Your task to perform on an android device: Open calendar and show me the fourth week of next month Image 0: 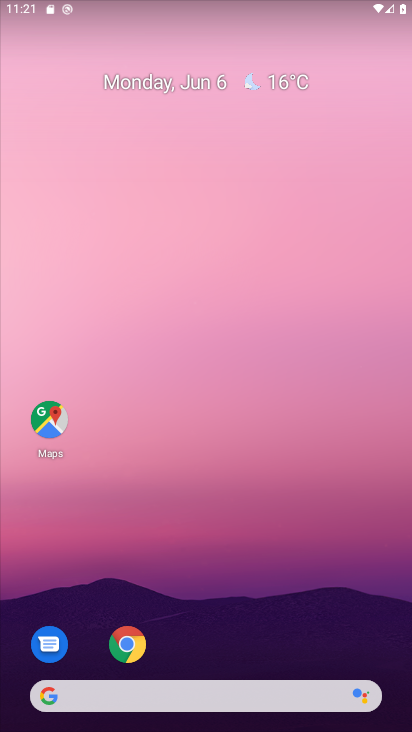
Step 0: click (338, 206)
Your task to perform on an android device: Open calendar and show me the fourth week of next month Image 1: 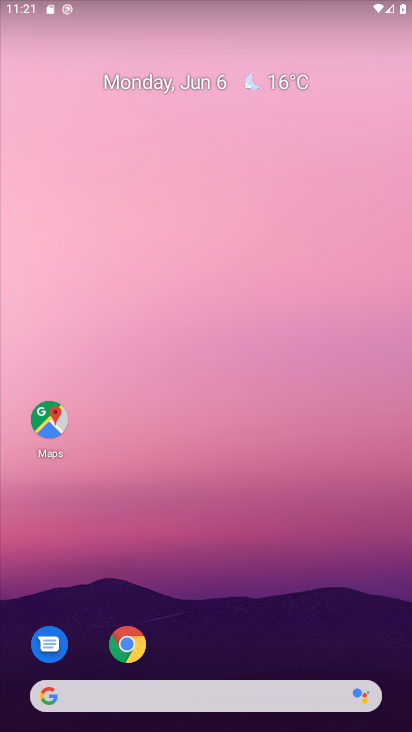
Step 1: drag from (234, 666) to (349, 171)
Your task to perform on an android device: Open calendar and show me the fourth week of next month Image 2: 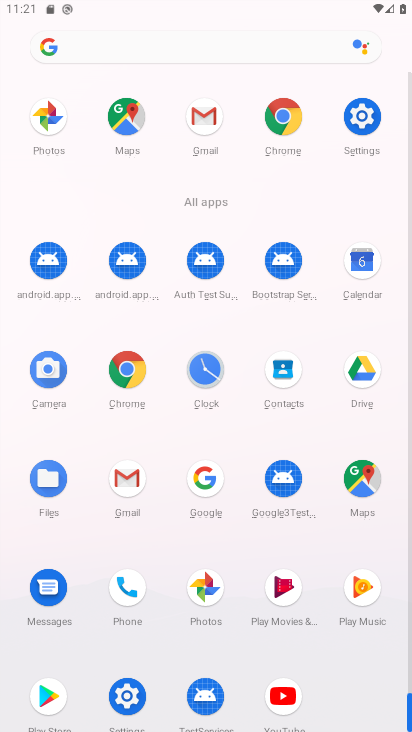
Step 2: click (363, 258)
Your task to perform on an android device: Open calendar and show me the fourth week of next month Image 3: 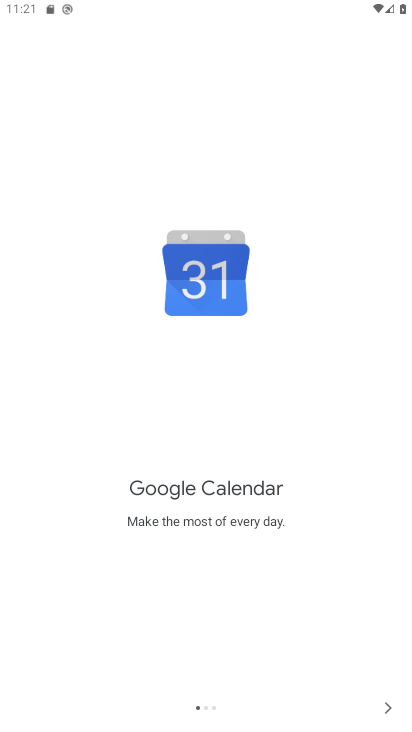
Step 3: click (385, 717)
Your task to perform on an android device: Open calendar and show me the fourth week of next month Image 4: 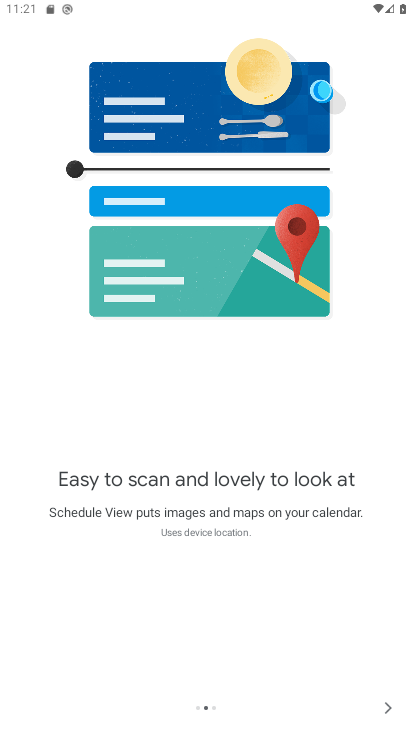
Step 4: click (385, 717)
Your task to perform on an android device: Open calendar and show me the fourth week of next month Image 5: 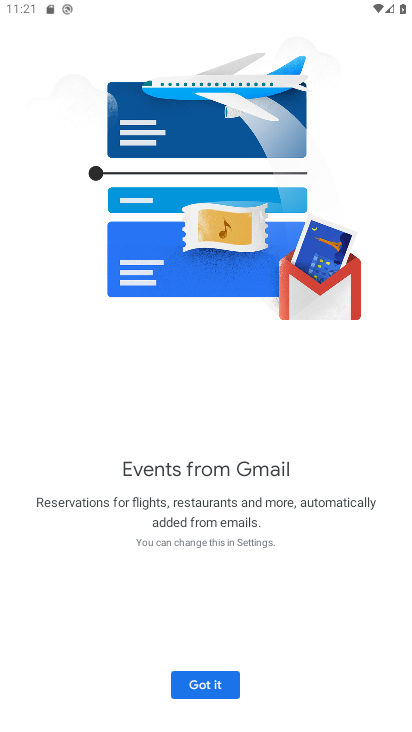
Step 5: click (231, 688)
Your task to perform on an android device: Open calendar and show me the fourth week of next month Image 6: 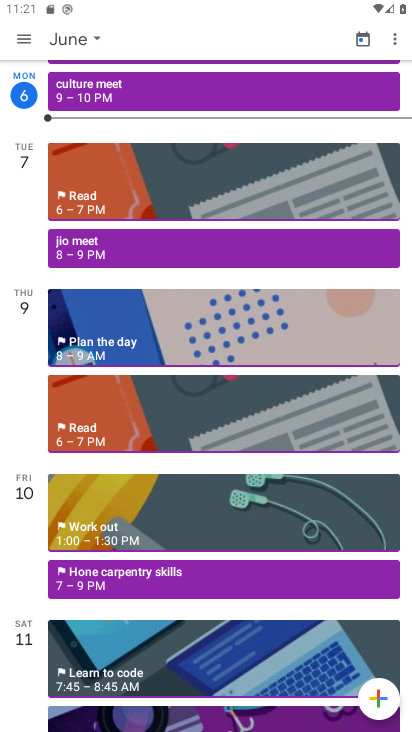
Step 6: click (75, 39)
Your task to perform on an android device: Open calendar and show me the fourth week of next month Image 7: 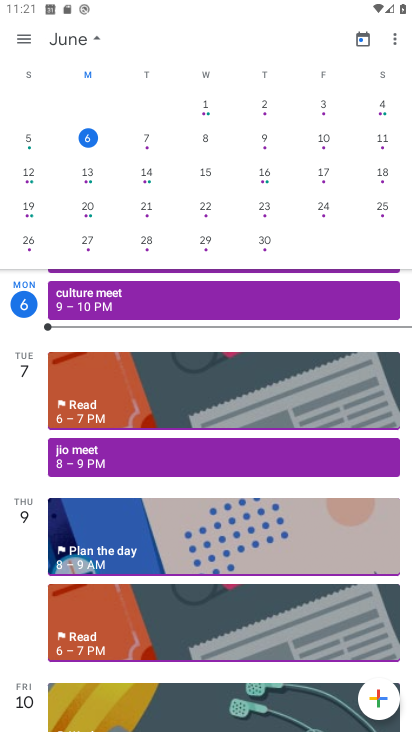
Step 7: drag from (371, 237) to (10, 239)
Your task to perform on an android device: Open calendar and show me the fourth week of next month Image 8: 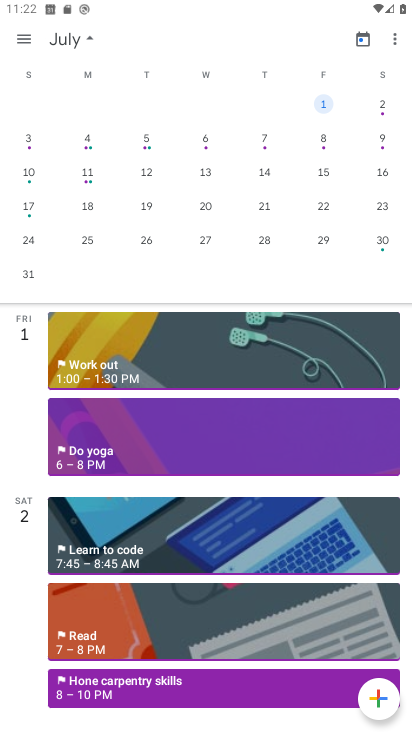
Step 8: click (366, 221)
Your task to perform on an android device: Open calendar and show me the fourth week of next month Image 9: 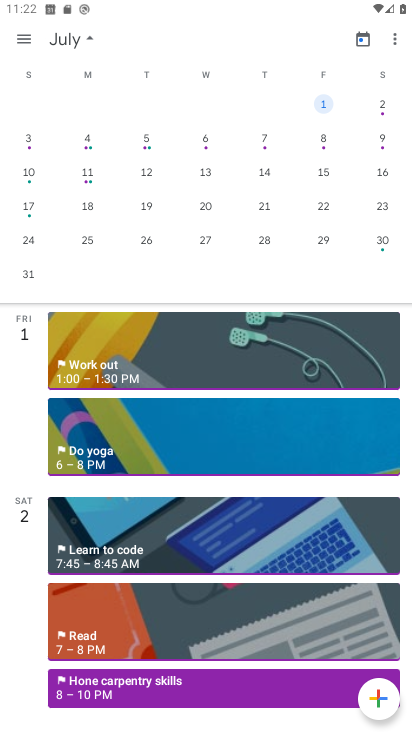
Step 9: click (35, 245)
Your task to perform on an android device: Open calendar and show me the fourth week of next month Image 10: 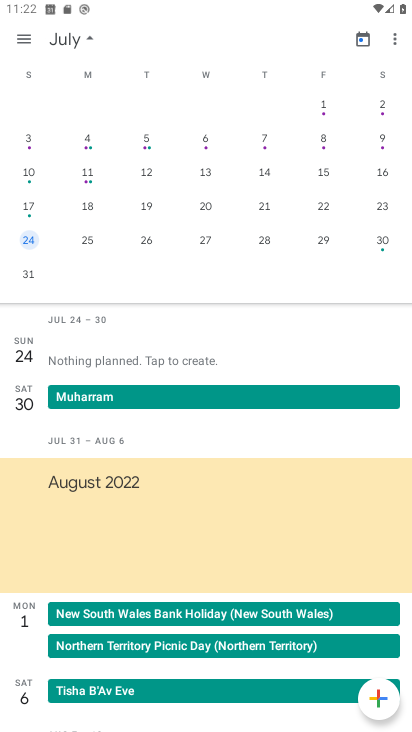
Step 10: click (28, 40)
Your task to perform on an android device: Open calendar and show me the fourth week of next month Image 11: 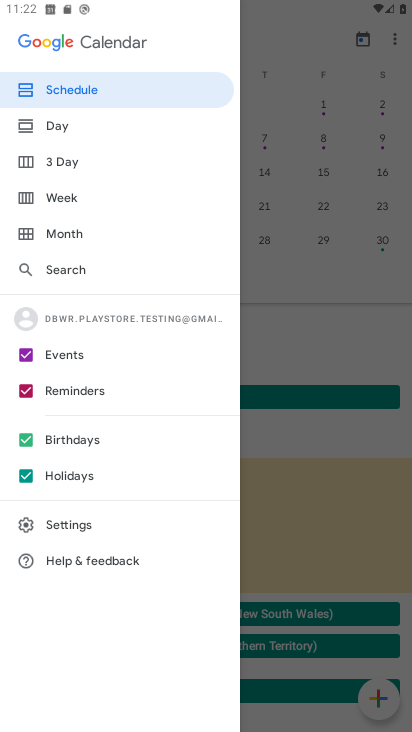
Step 11: click (129, 206)
Your task to perform on an android device: Open calendar and show me the fourth week of next month Image 12: 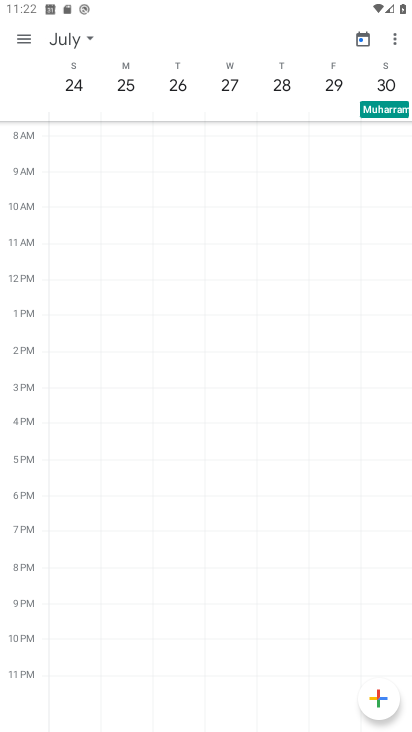
Step 12: task complete